Your task to perform on an android device: When is my next meeting? Image 0: 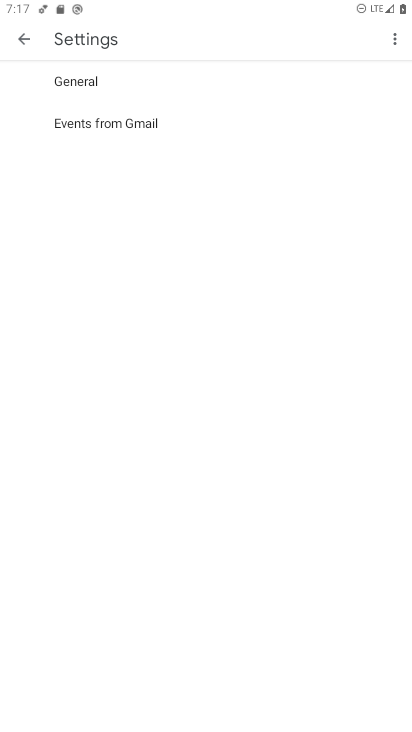
Step 0: press home button
Your task to perform on an android device: When is my next meeting? Image 1: 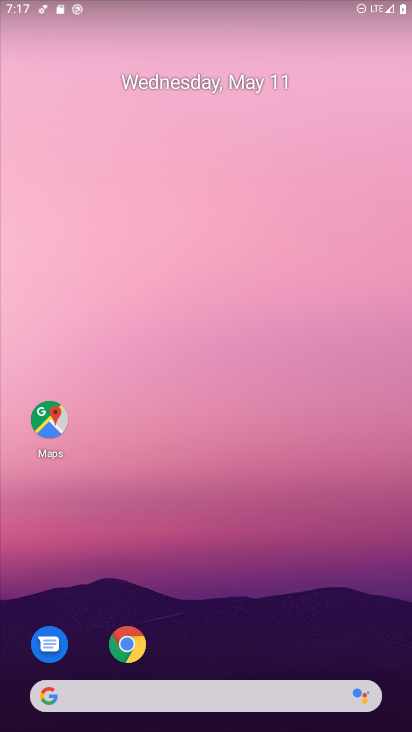
Step 1: drag from (257, 571) to (212, 109)
Your task to perform on an android device: When is my next meeting? Image 2: 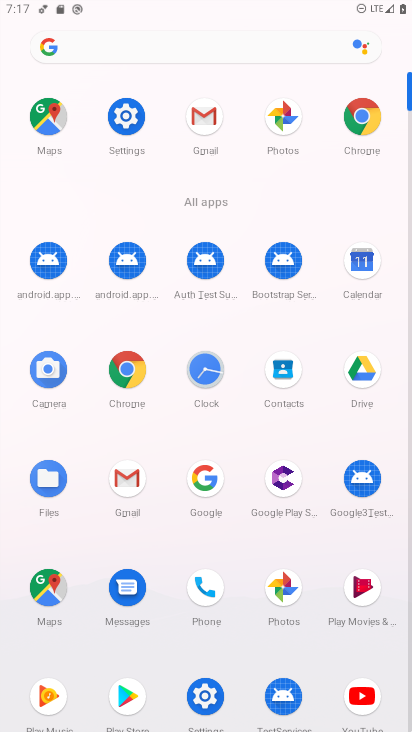
Step 2: click (355, 269)
Your task to perform on an android device: When is my next meeting? Image 3: 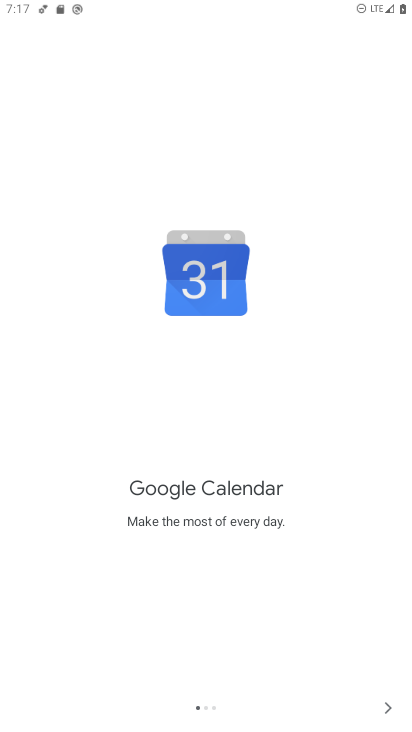
Step 3: click (385, 703)
Your task to perform on an android device: When is my next meeting? Image 4: 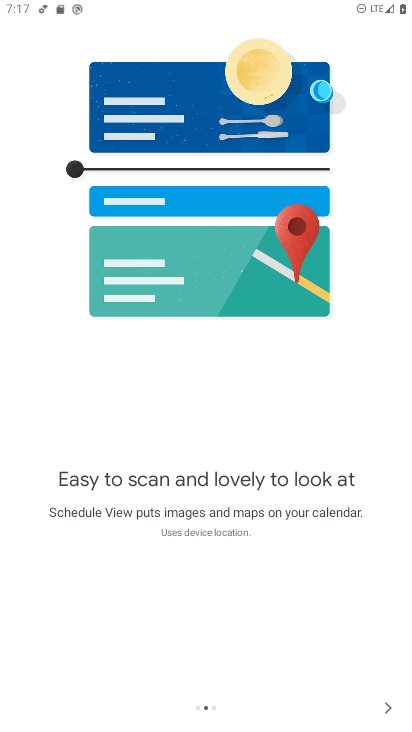
Step 4: click (387, 703)
Your task to perform on an android device: When is my next meeting? Image 5: 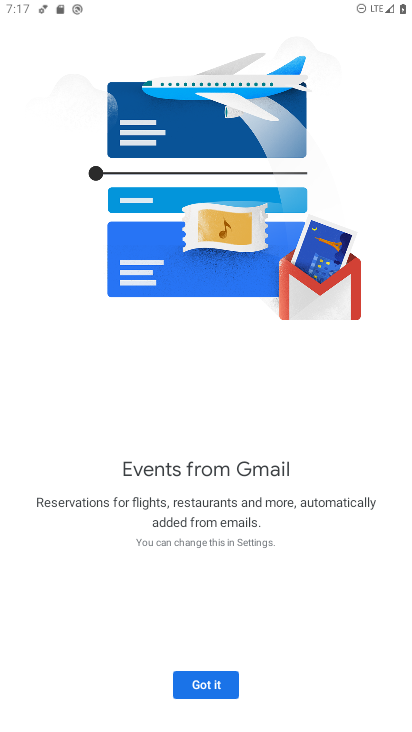
Step 5: click (205, 683)
Your task to perform on an android device: When is my next meeting? Image 6: 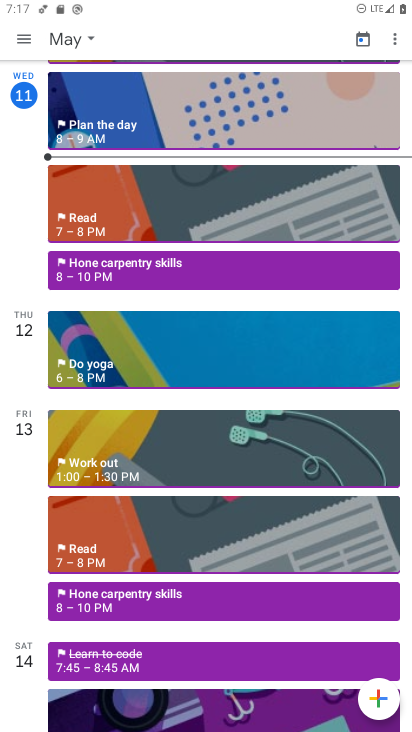
Step 6: click (87, 34)
Your task to perform on an android device: When is my next meeting? Image 7: 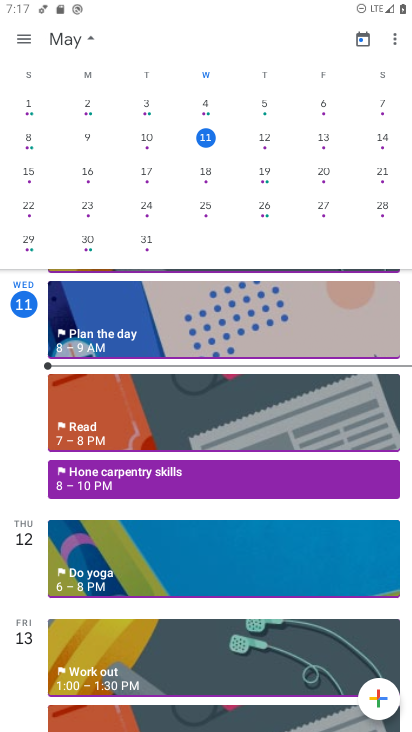
Step 7: task complete